Your task to perform on an android device: Open Google Chrome and open the bookmarks view Image 0: 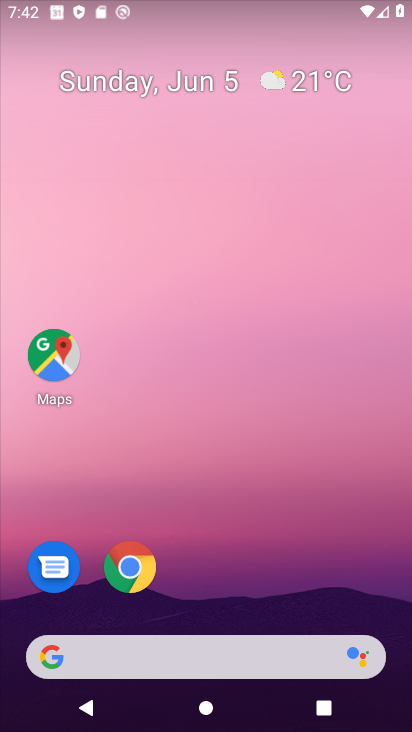
Step 0: click (128, 564)
Your task to perform on an android device: Open Google Chrome and open the bookmarks view Image 1: 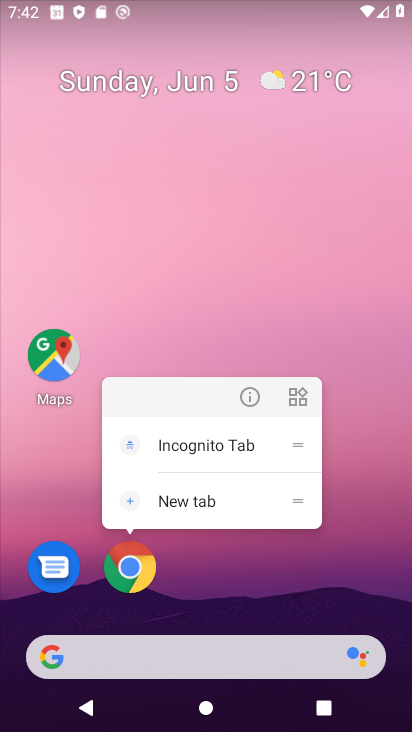
Step 1: click (128, 564)
Your task to perform on an android device: Open Google Chrome and open the bookmarks view Image 2: 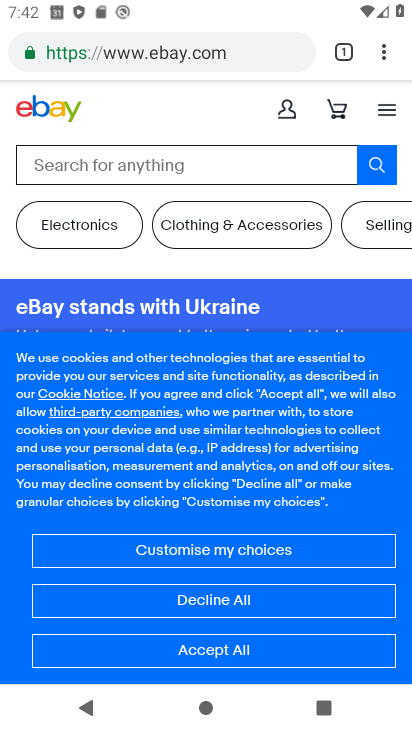
Step 2: click (387, 47)
Your task to perform on an android device: Open Google Chrome and open the bookmarks view Image 3: 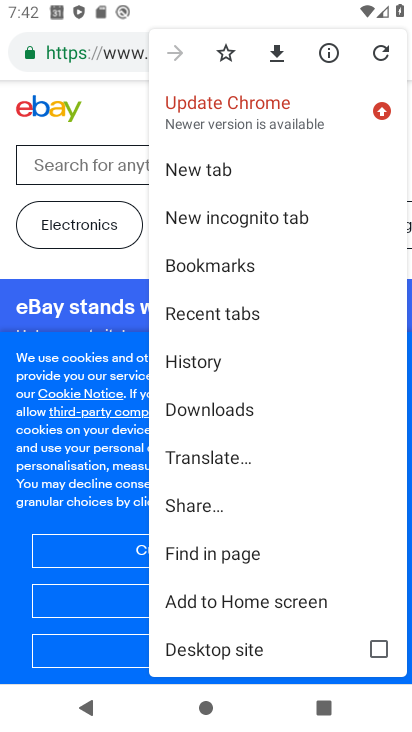
Step 3: click (200, 272)
Your task to perform on an android device: Open Google Chrome and open the bookmarks view Image 4: 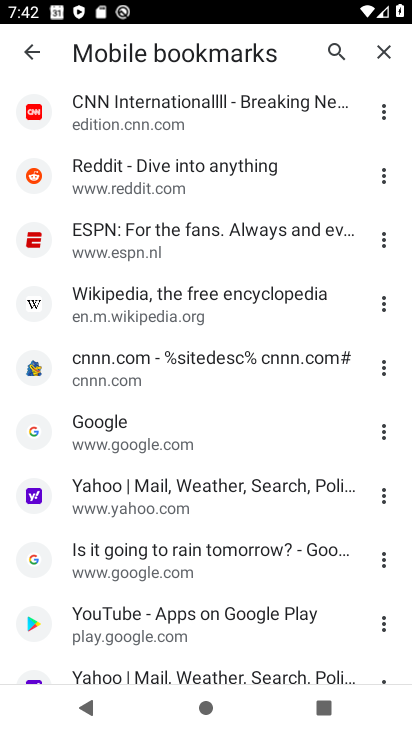
Step 4: task complete